Your task to perform on an android device: Search for seafood restaurants on Google Maps Image 0: 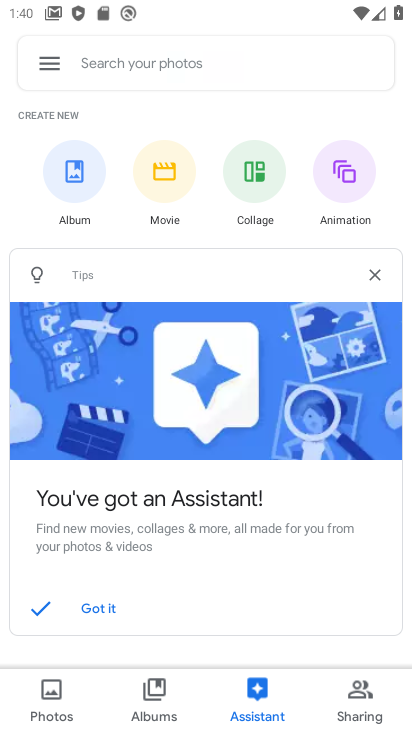
Step 0: press home button
Your task to perform on an android device: Search for seafood restaurants on Google Maps Image 1: 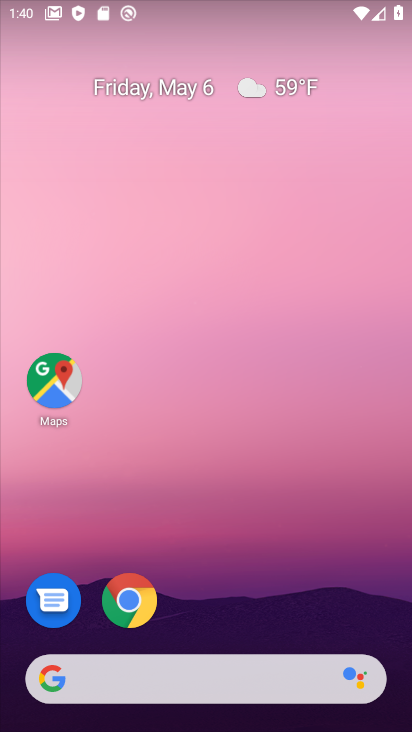
Step 1: click (58, 376)
Your task to perform on an android device: Search for seafood restaurants on Google Maps Image 2: 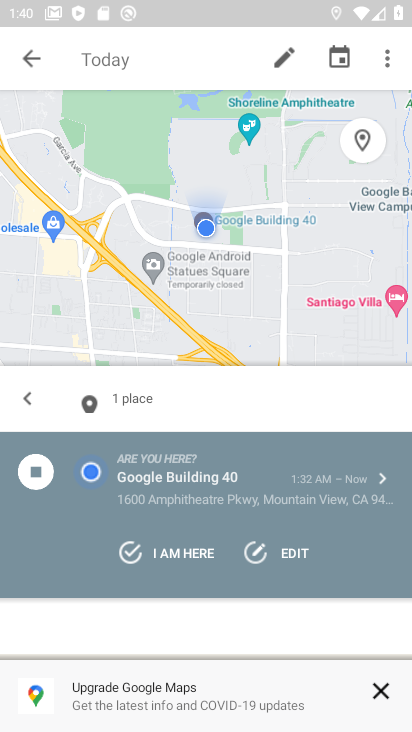
Step 2: press back button
Your task to perform on an android device: Search for seafood restaurants on Google Maps Image 3: 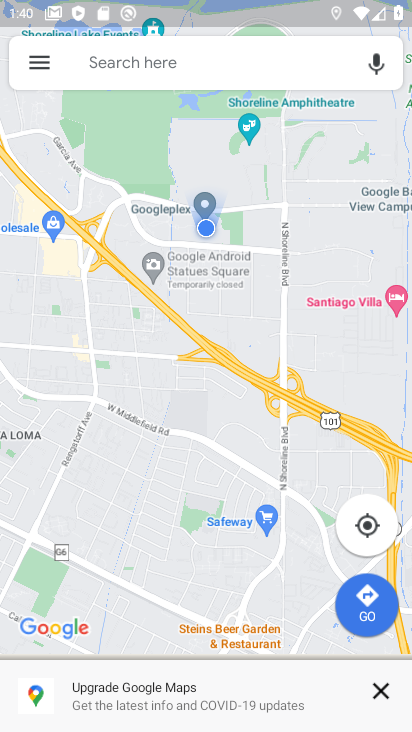
Step 3: click (203, 70)
Your task to perform on an android device: Search for seafood restaurants on Google Maps Image 4: 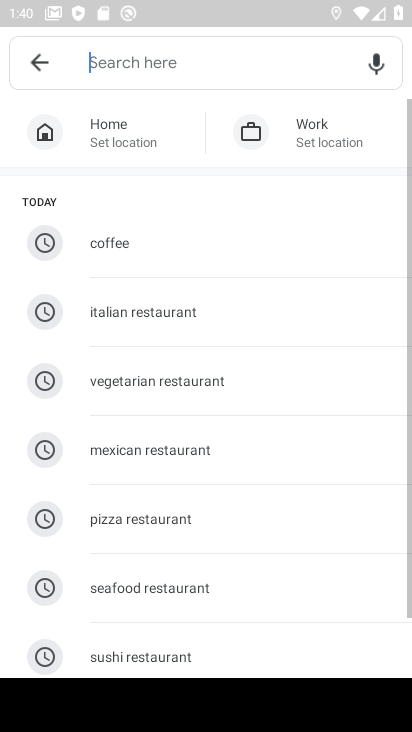
Step 4: click (144, 591)
Your task to perform on an android device: Search for seafood restaurants on Google Maps Image 5: 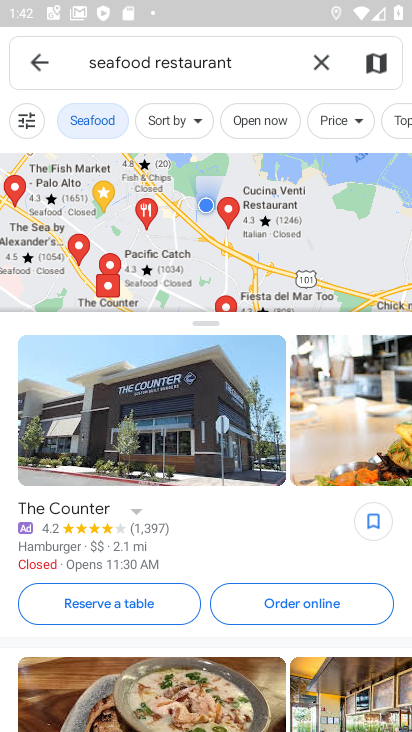
Step 5: task complete